Your task to perform on an android device: Open the web browser Image 0: 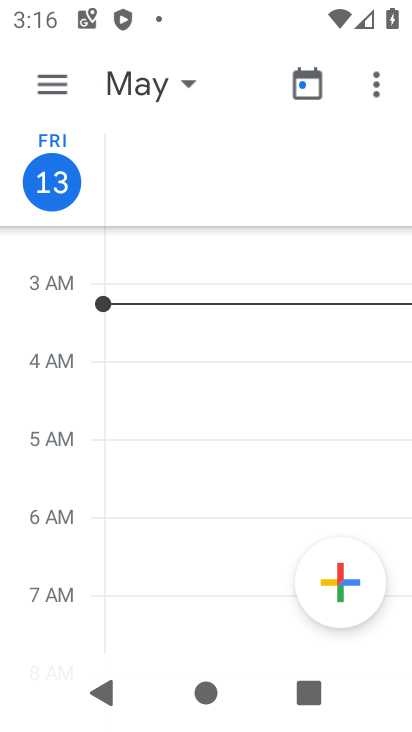
Step 0: press home button
Your task to perform on an android device: Open the web browser Image 1: 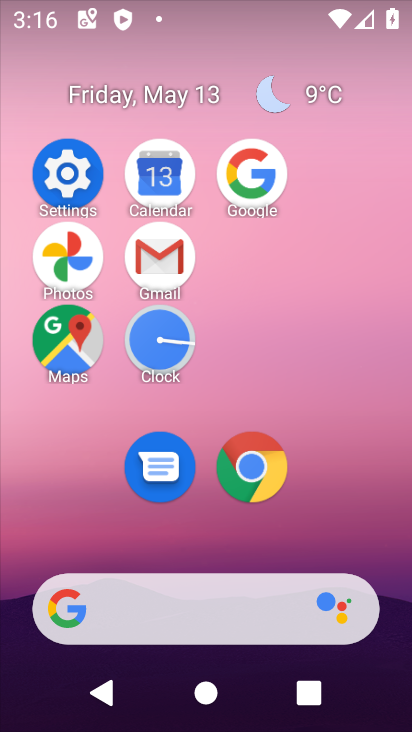
Step 1: click (272, 460)
Your task to perform on an android device: Open the web browser Image 2: 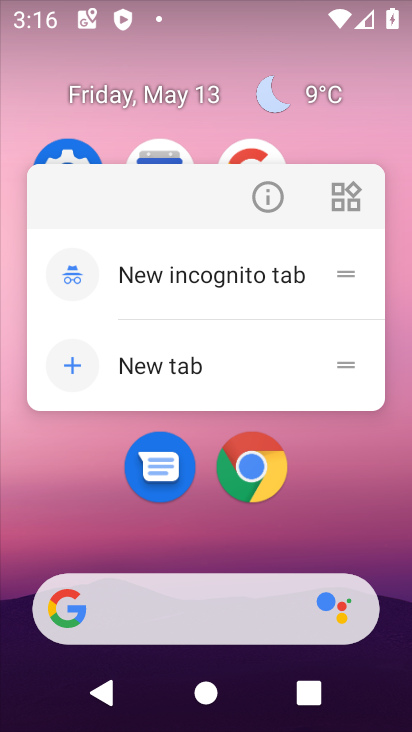
Step 2: click (218, 483)
Your task to perform on an android device: Open the web browser Image 3: 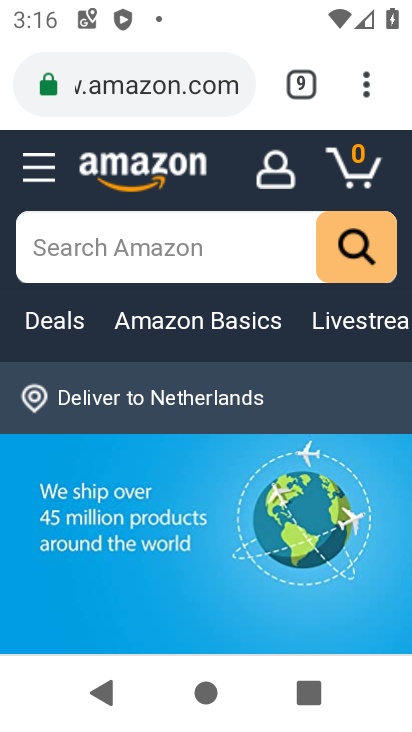
Step 3: task complete